Your task to perform on an android device: uninstall "TextNow: Call + Text Unlimited" Image 0: 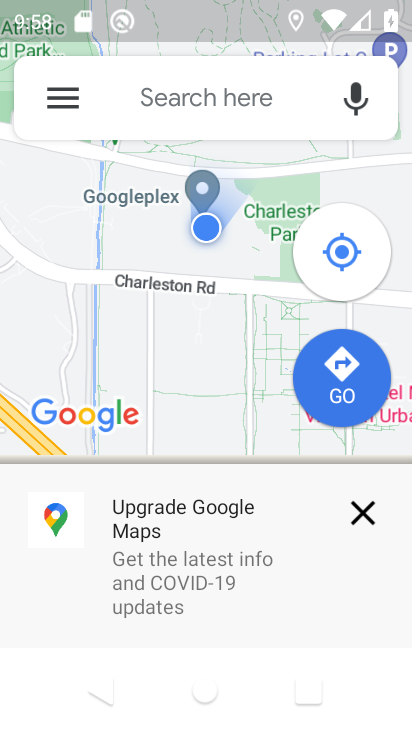
Step 0: press home button
Your task to perform on an android device: uninstall "TextNow: Call + Text Unlimited" Image 1: 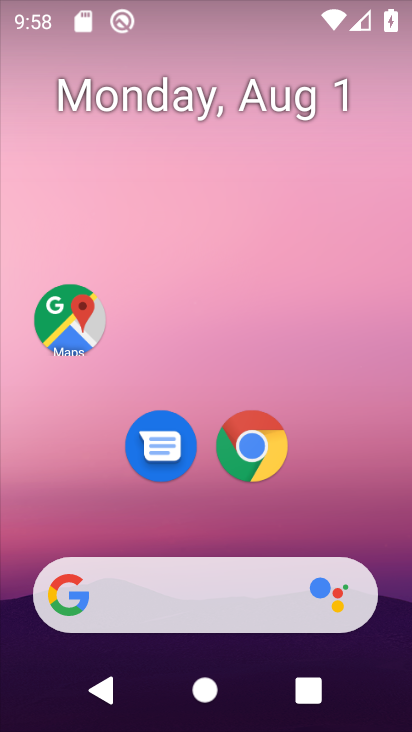
Step 1: drag from (185, 526) to (236, 149)
Your task to perform on an android device: uninstall "TextNow: Call + Text Unlimited" Image 2: 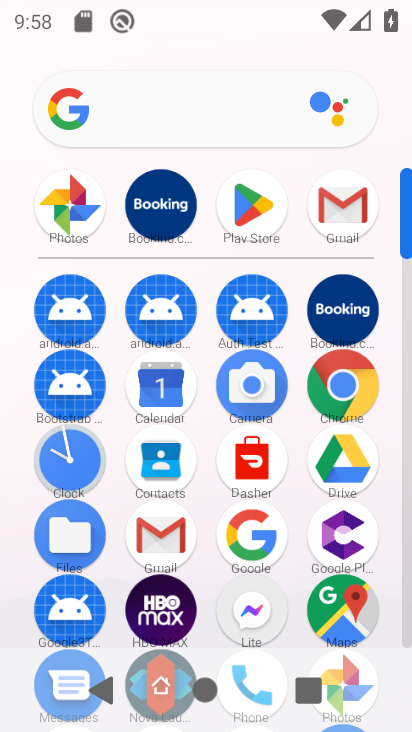
Step 2: click (235, 195)
Your task to perform on an android device: uninstall "TextNow: Call + Text Unlimited" Image 3: 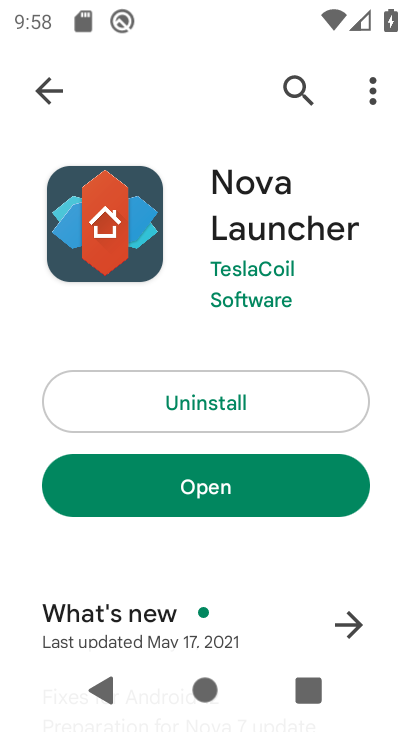
Step 3: click (287, 83)
Your task to perform on an android device: uninstall "TextNow: Call + Text Unlimited" Image 4: 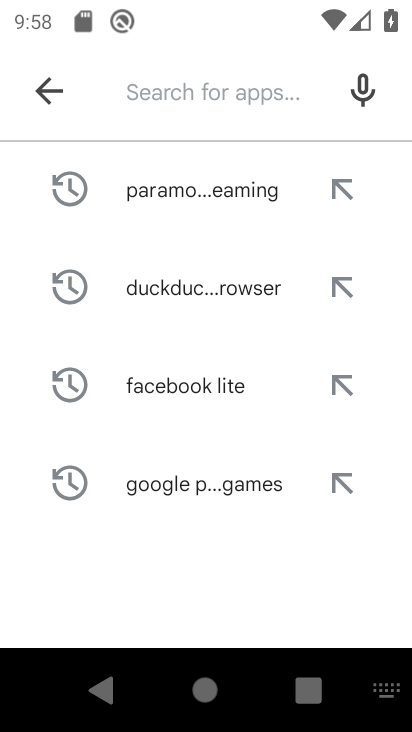
Step 4: type "TextNow: Call + Text Unlimited"
Your task to perform on an android device: uninstall "TextNow: Call + Text Unlimited" Image 5: 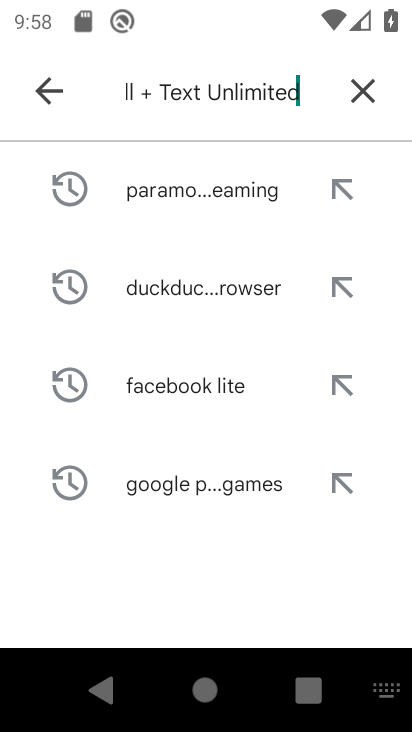
Step 5: type ""
Your task to perform on an android device: uninstall "TextNow: Call + Text Unlimited" Image 6: 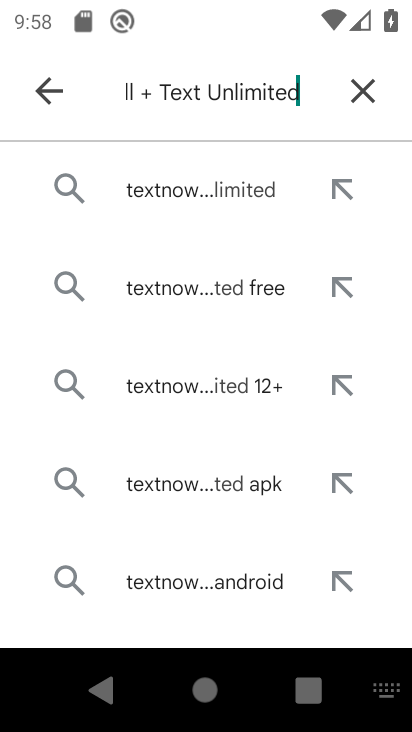
Step 6: click (225, 198)
Your task to perform on an android device: uninstall "TextNow: Call + Text Unlimited" Image 7: 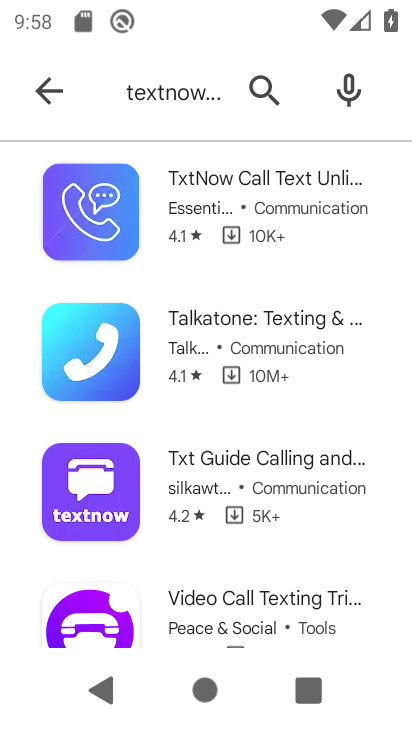
Step 7: click (225, 198)
Your task to perform on an android device: uninstall "TextNow: Call + Text Unlimited" Image 8: 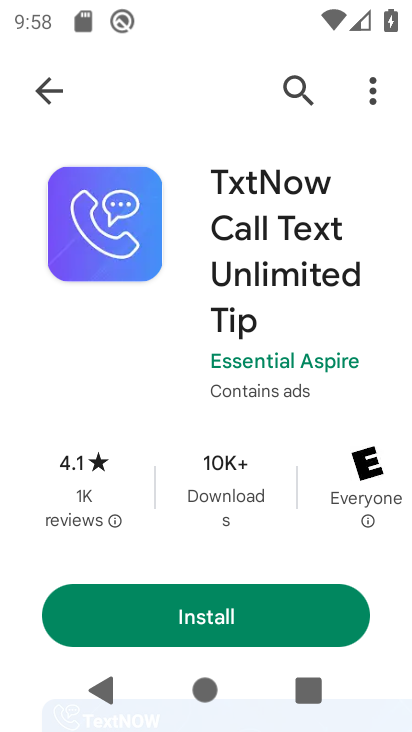
Step 8: task complete